Your task to perform on an android device: Go to location settings Image 0: 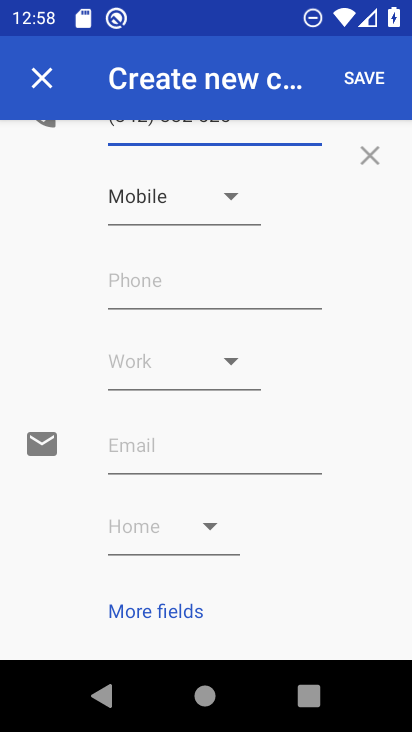
Step 0: press home button
Your task to perform on an android device: Go to location settings Image 1: 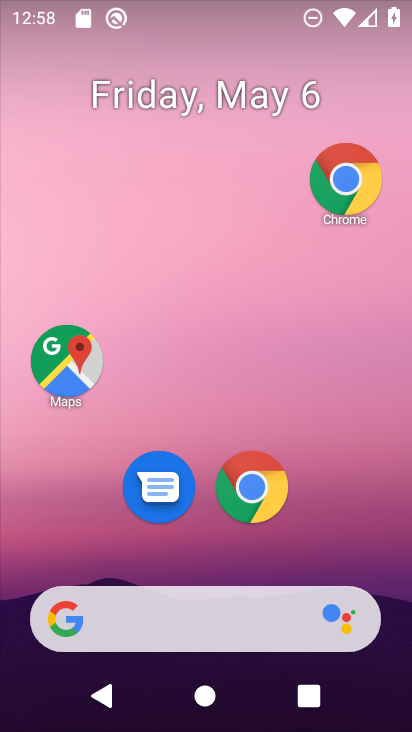
Step 1: drag from (375, 516) to (285, 84)
Your task to perform on an android device: Go to location settings Image 2: 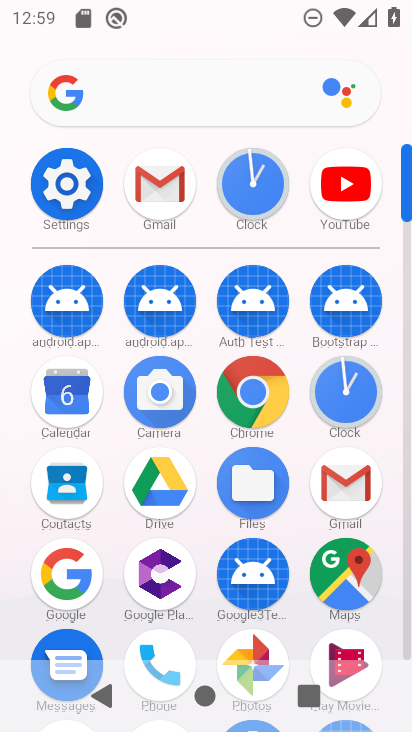
Step 2: click (77, 176)
Your task to perform on an android device: Go to location settings Image 3: 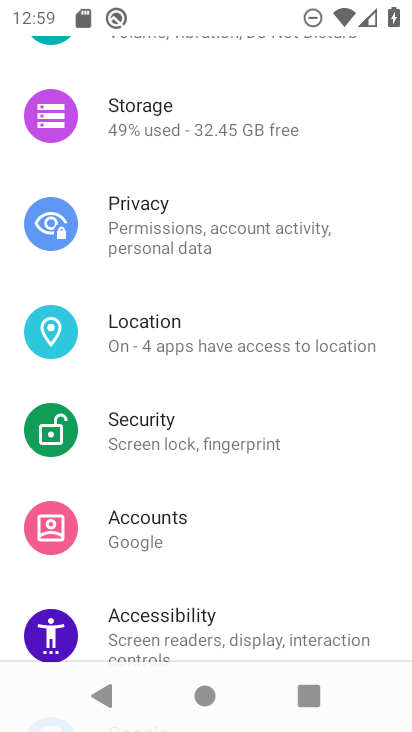
Step 3: click (237, 344)
Your task to perform on an android device: Go to location settings Image 4: 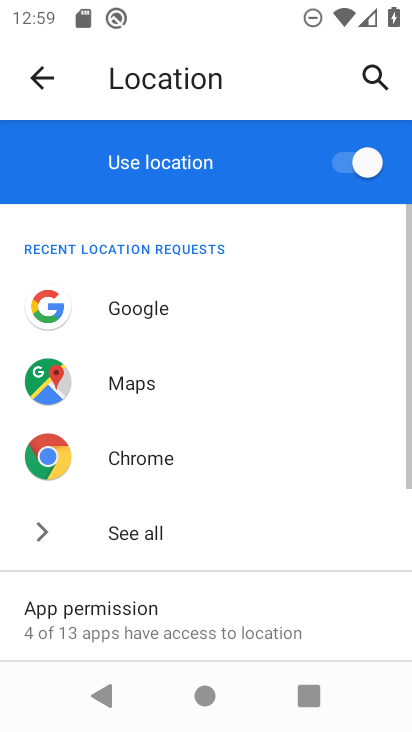
Step 4: task complete